Your task to perform on an android device: Open internet settings Image 0: 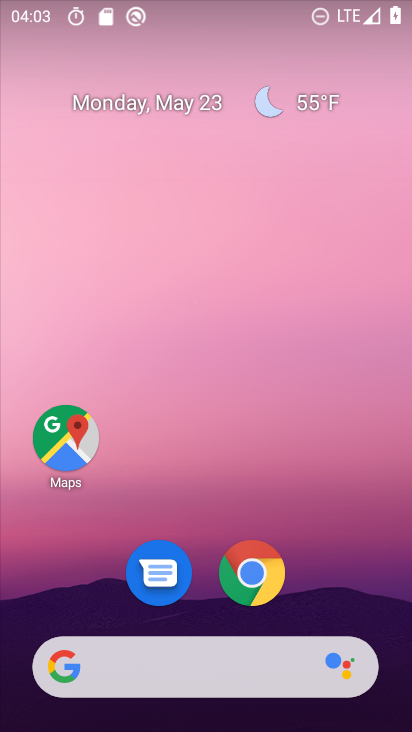
Step 0: drag from (324, 581) to (252, 15)
Your task to perform on an android device: Open internet settings Image 1: 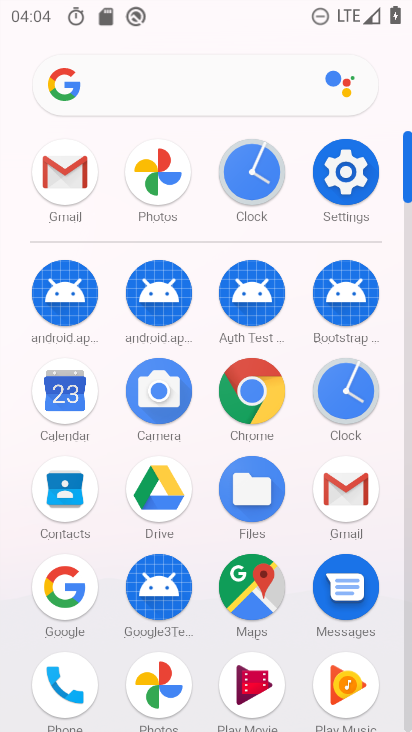
Step 1: click (348, 182)
Your task to perform on an android device: Open internet settings Image 2: 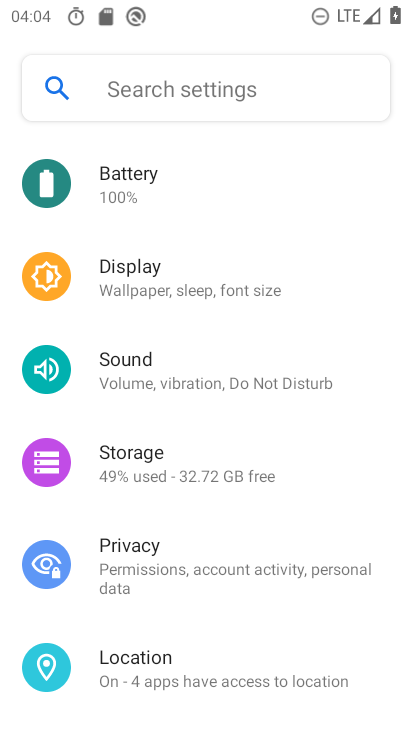
Step 2: drag from (250, 226) to (208, 624)
Your task to perform on an android device: Open internet settings Image 3: 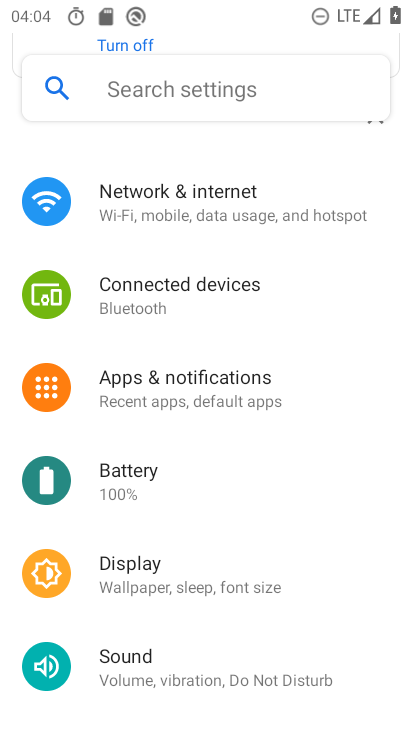
Step 3: click (246, 220)
Your task to perform on an android device: Open internet settings Image 4: 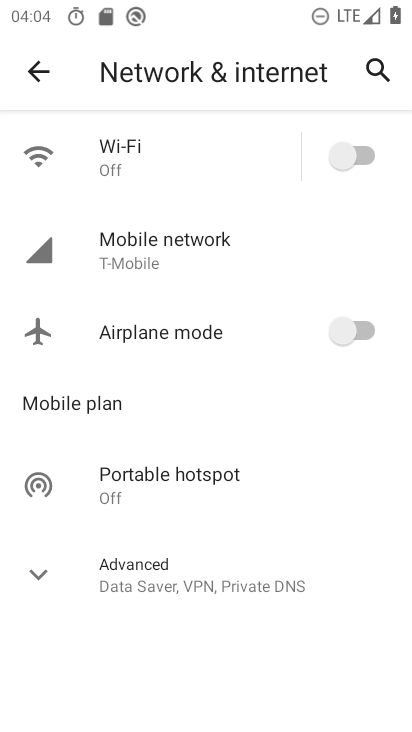
Step 4: task complete